Your task to perform on an android device: Go to Wikipedia Image 0: 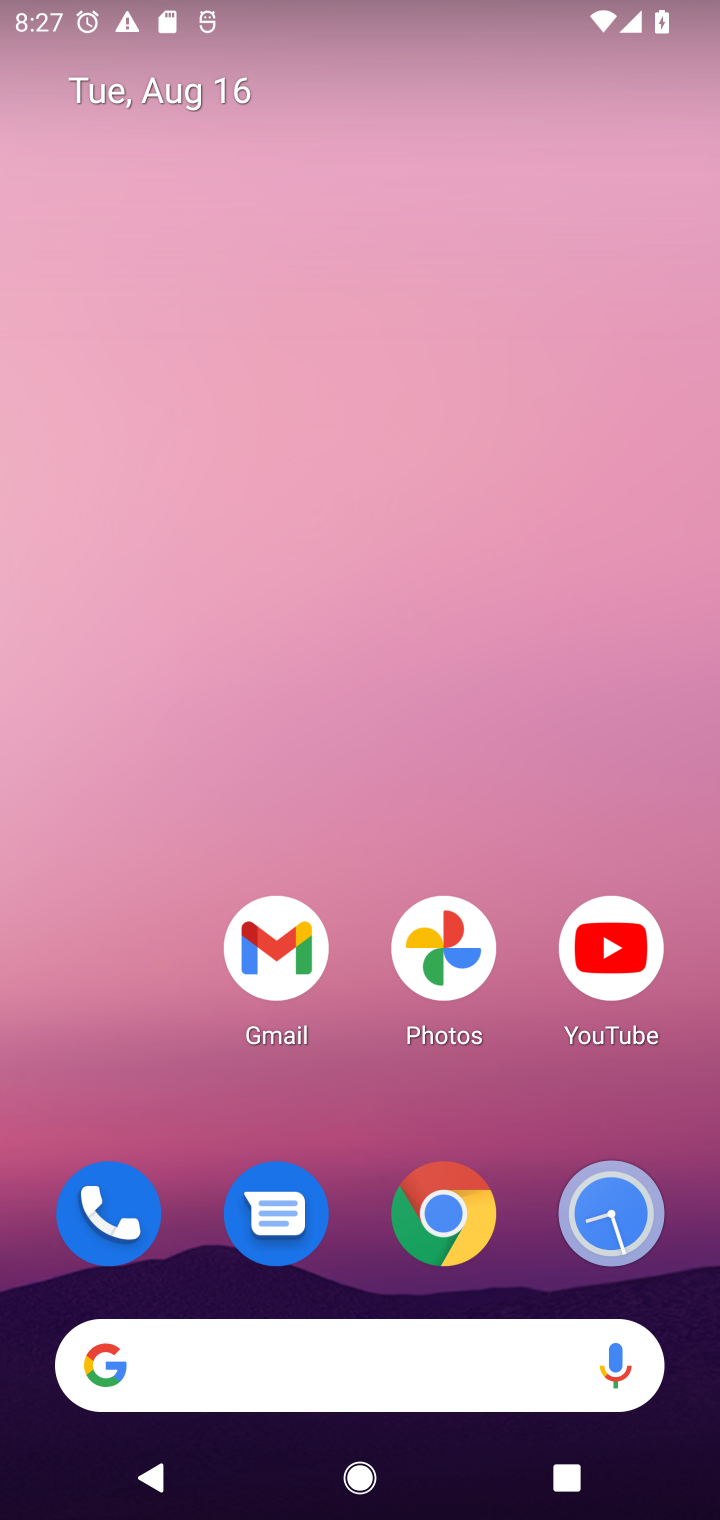
Step 0: press home button
Your task to perform on an android device: Go to Wikipedia Image 1: 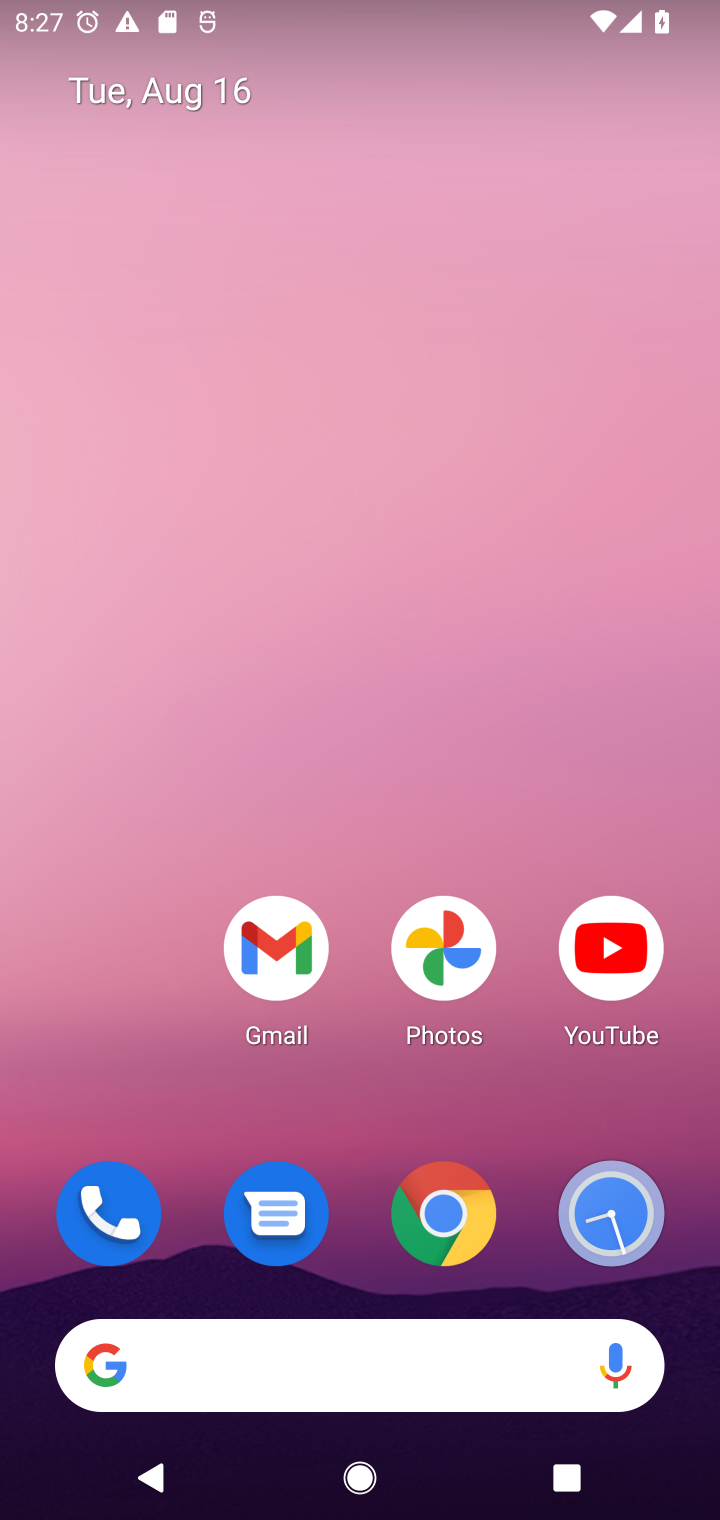
Step 1: drag from (353, 1312) to (371, 221)
Your task to perform on an android device: Go to Wikipedia Image 2: 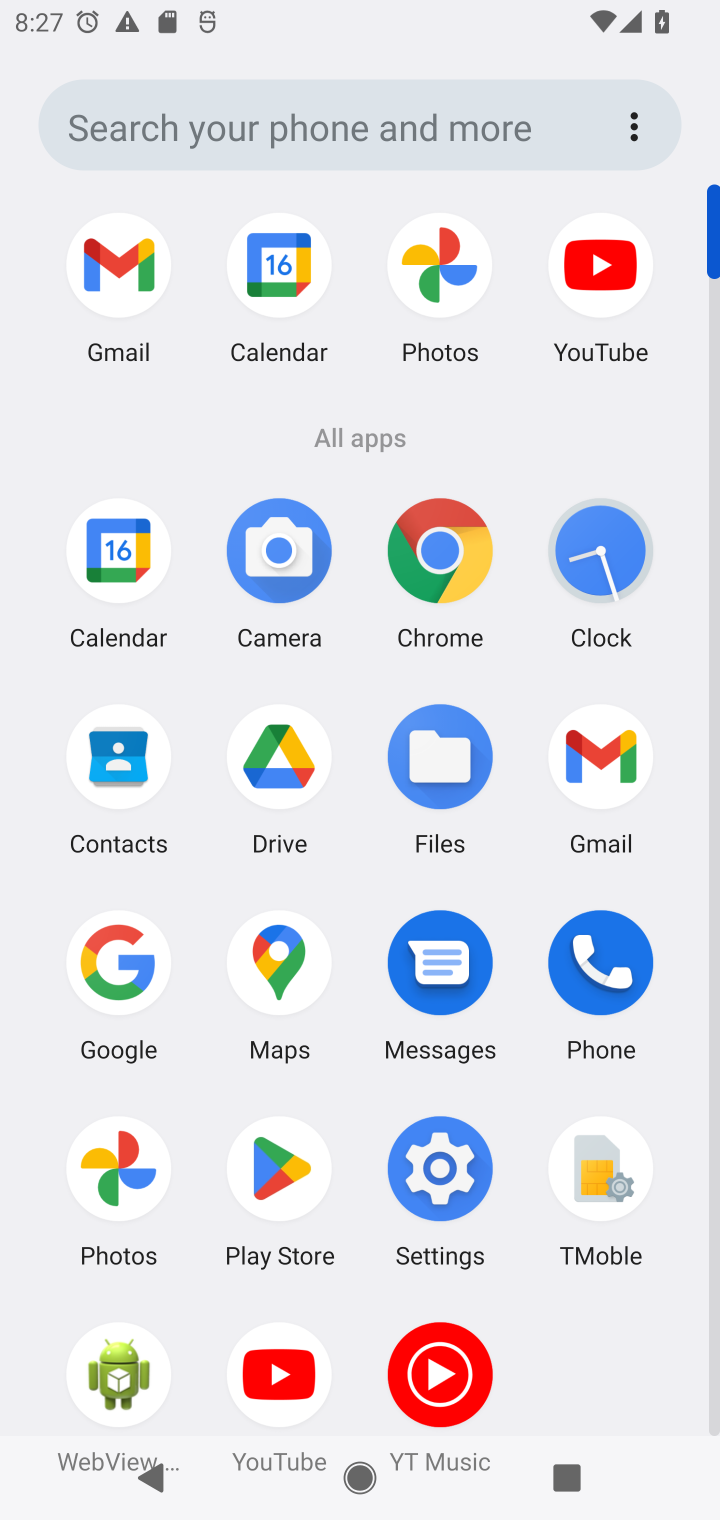
Step 2: click (440, 523)
Your task to perform on an android device: Go to Wikipedia Image 3: 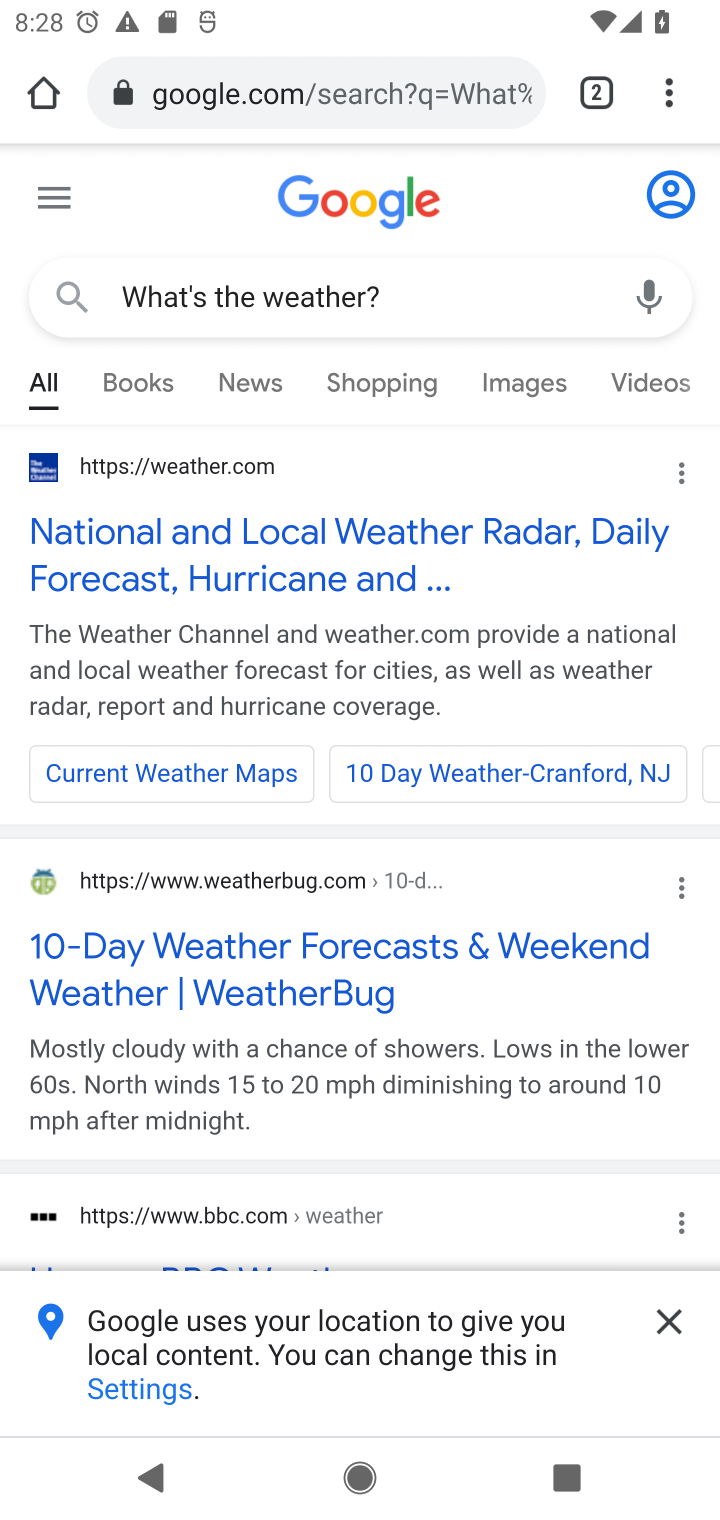
Step 3: click (657, 73)
Your task to perform on an android device: Go to Wikipedia Image 4: 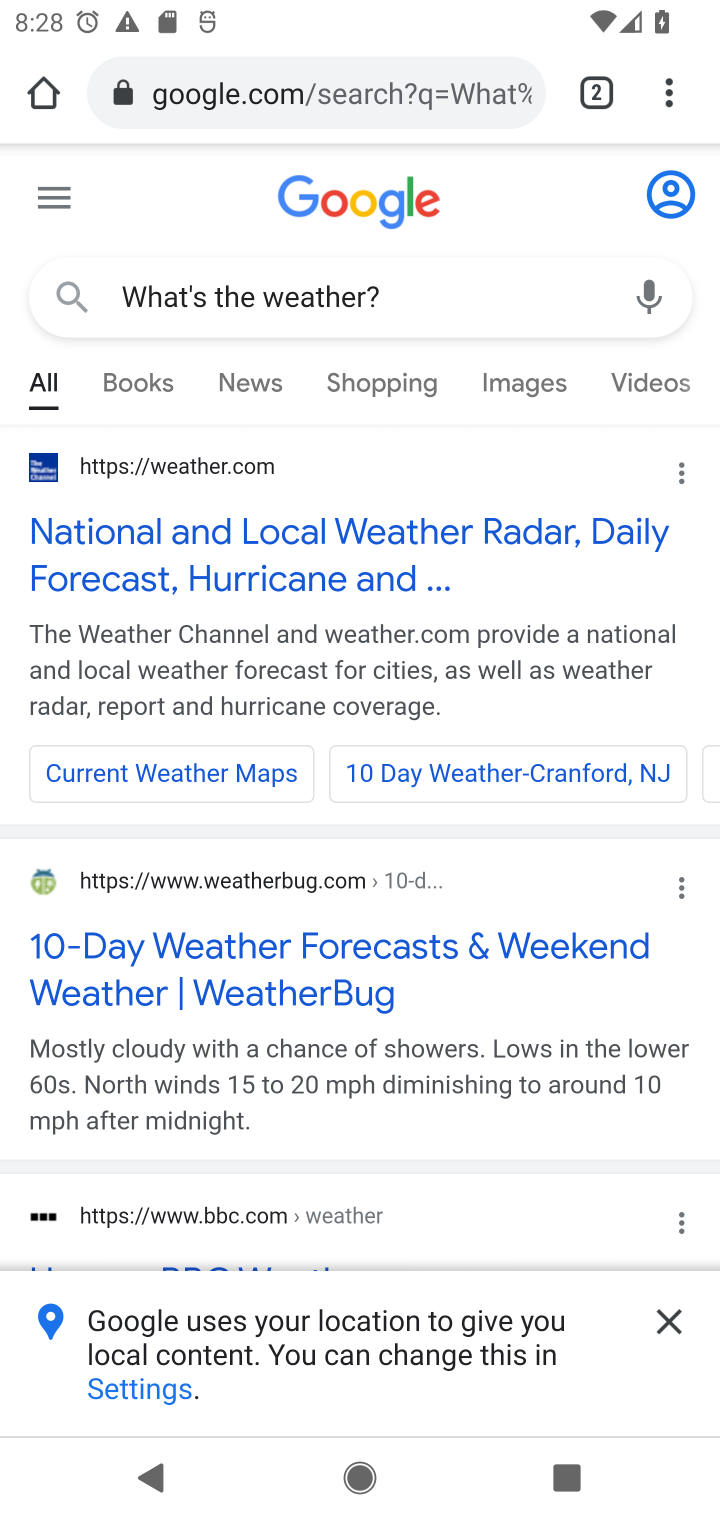
Step 4: click (683, 89)
Your task to perform on an android device: Go to Wikipedia Image 5: 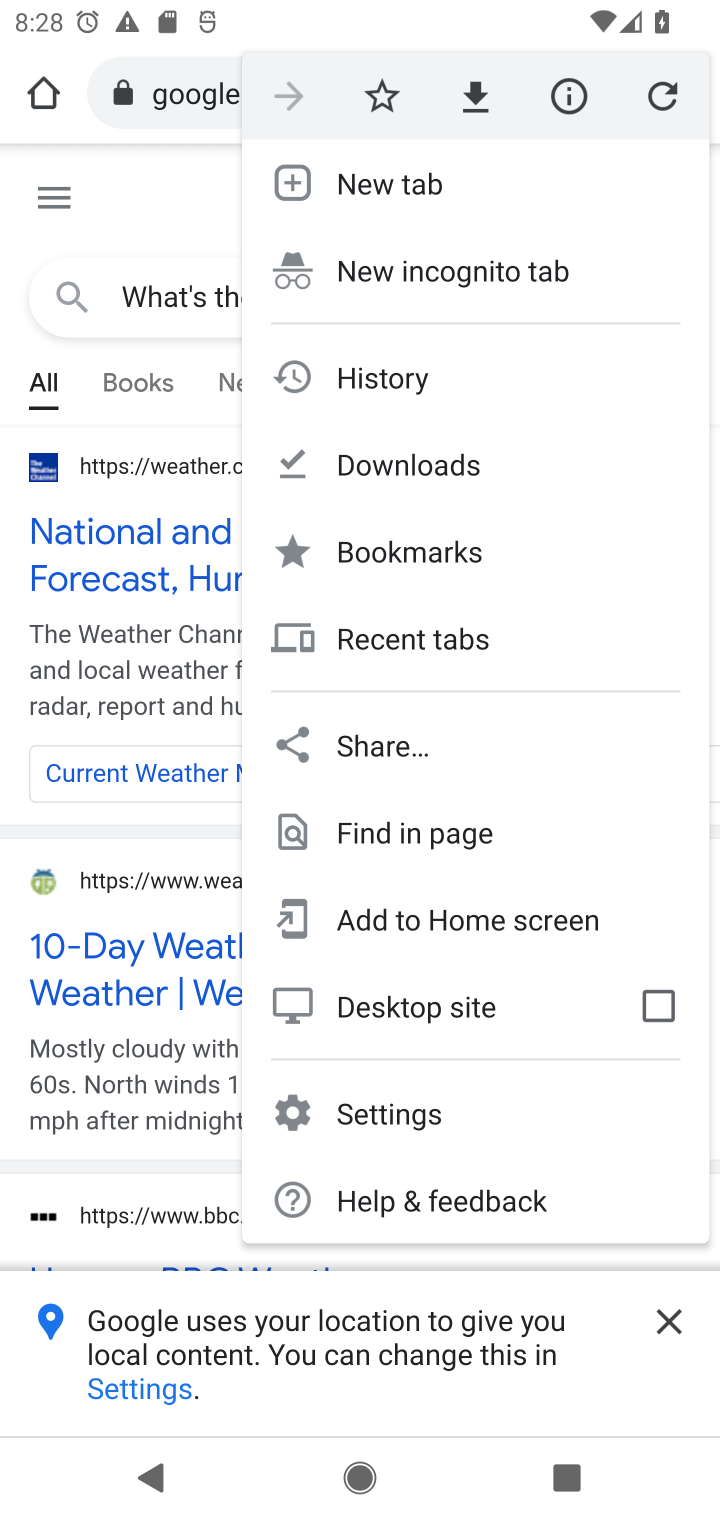
Step 5: click (413, 189)
Your task to perform on an android device: Go to Wikipedia Image 6: 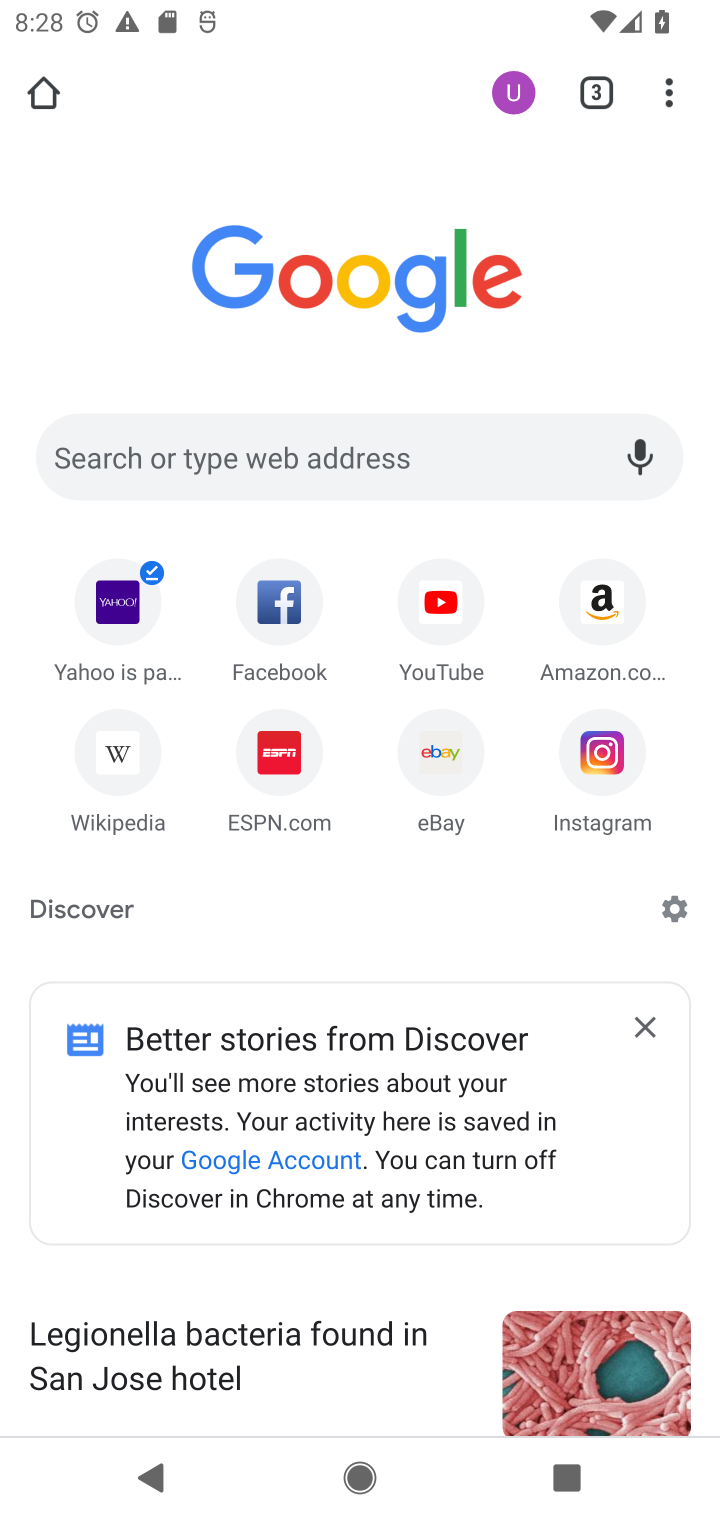
Step 6: click (131, 754)
Your task to perform on an android device: Go to Wikipedia Image 7: 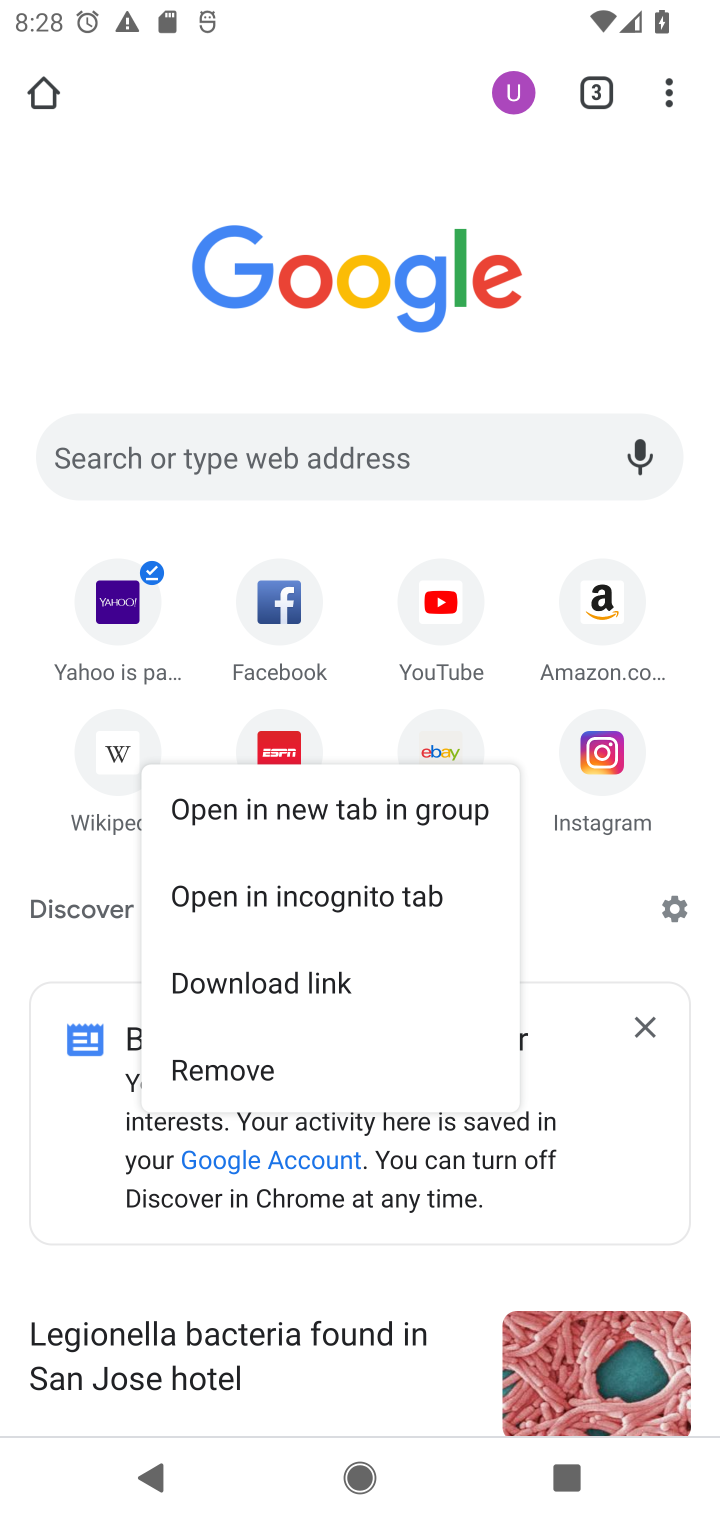
Step 7: click (97, 745)
Your task to perform on an android device: Go to Wikipedia Image 8: 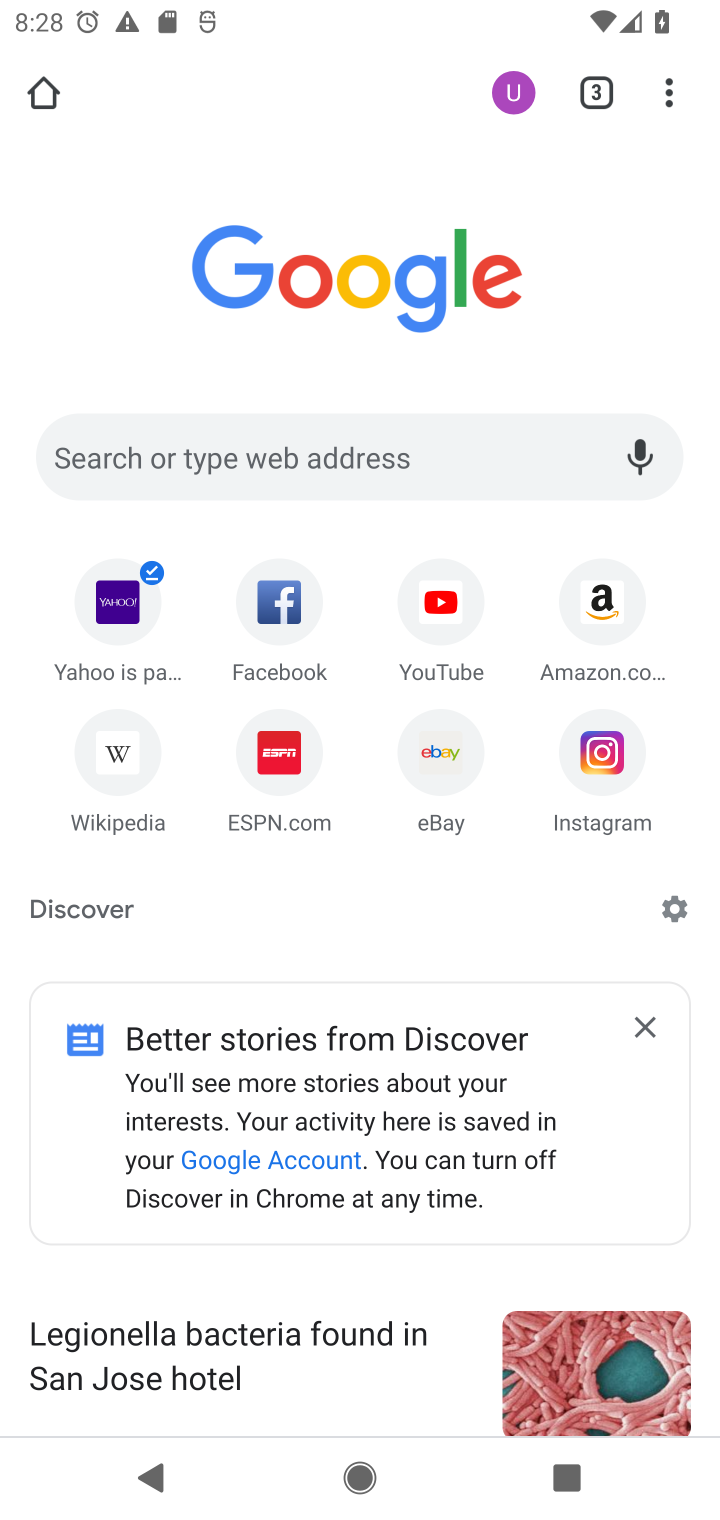
Step 8: click (97, 745)
Your task to perform on an android device: Go to Wikipedia Image 9: 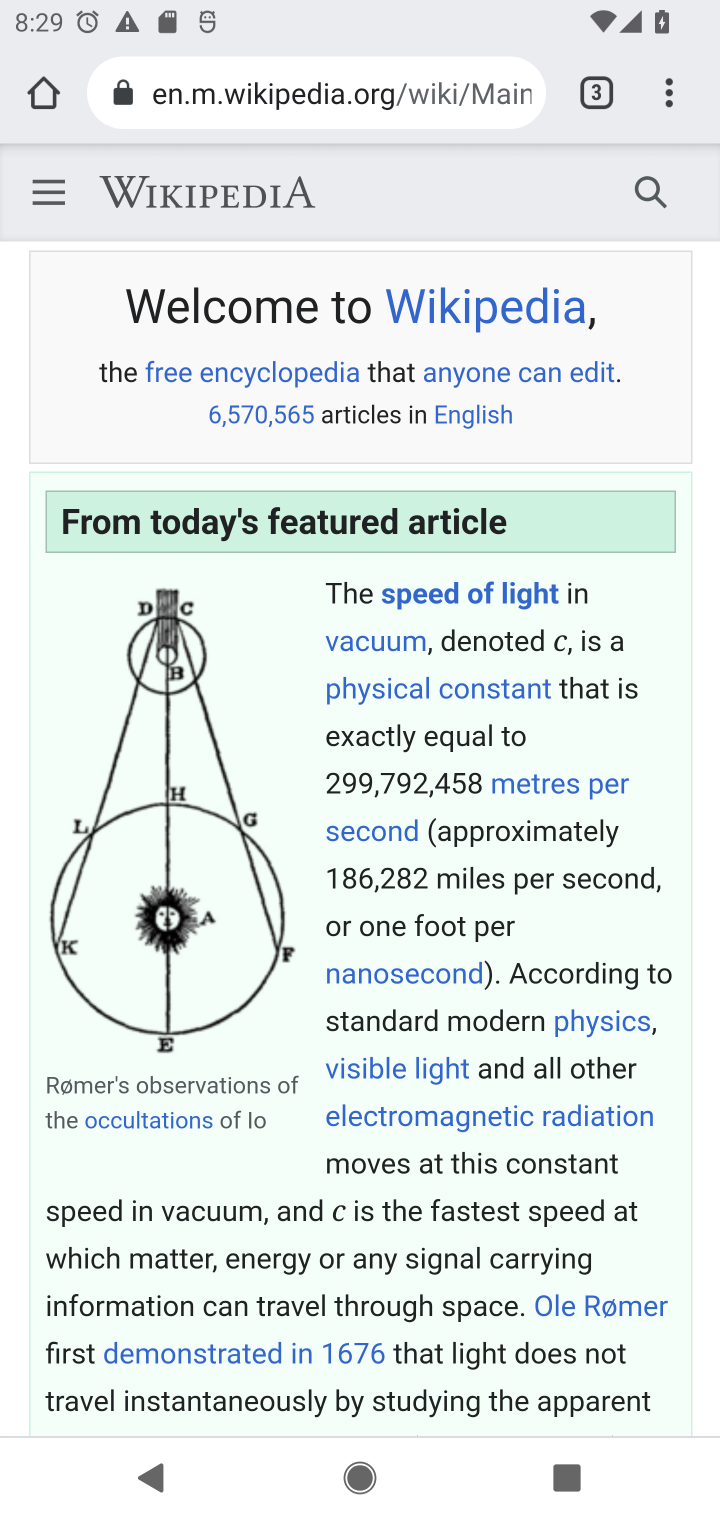
Step 9: task complete